Your task to perform on an android device: Go to wifi settings Image 0: 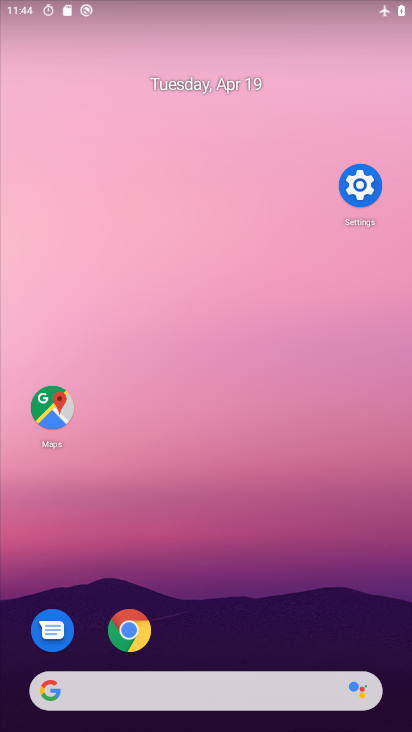
Step 0: drag from (229, 598) to (226, 114)
Your task to perform on an android device: Go to wifi settings Image 1: 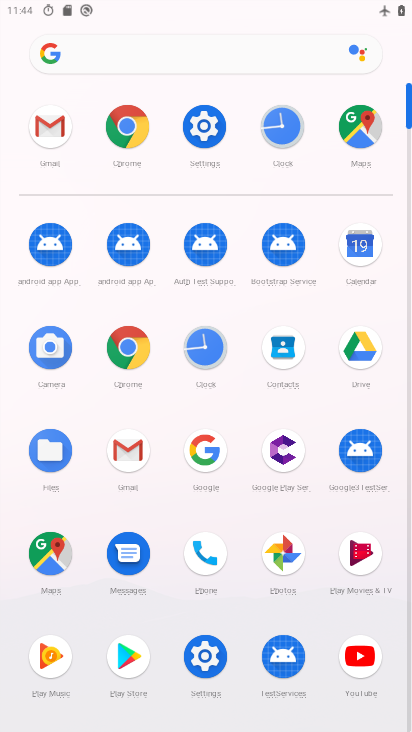
Step 1: click (216, 132)
Your task to perform on an android device: Go to wifi settings Image 2: 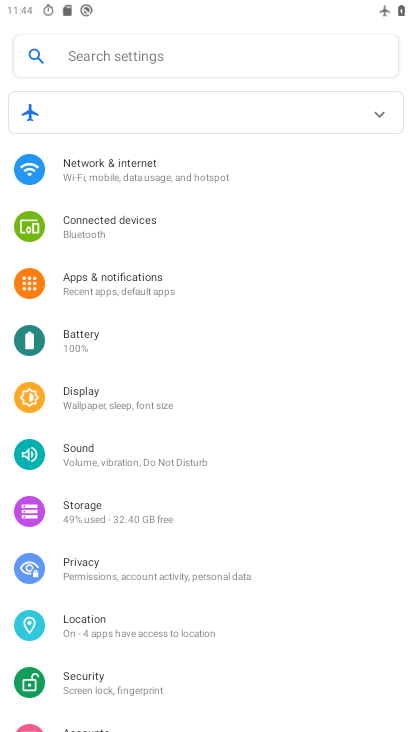
Step 2: click (193, 165)
Your task to perform on an android device: Go to wifi settings Image 3: 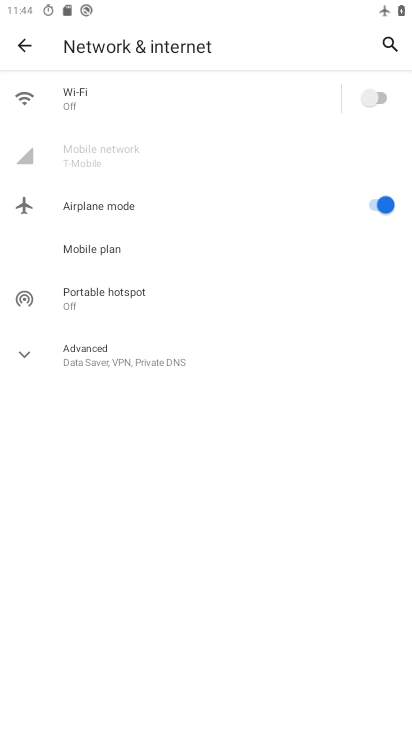
Step 3: click (136, 102)
Your task to perform on an android device: Go to wifi settings Image 4: 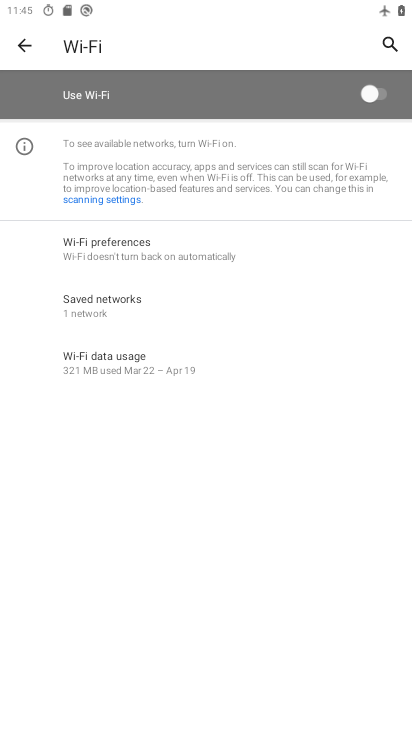
Step 4: task complete